Your task to perform on an android device: set an alarm Image 0: 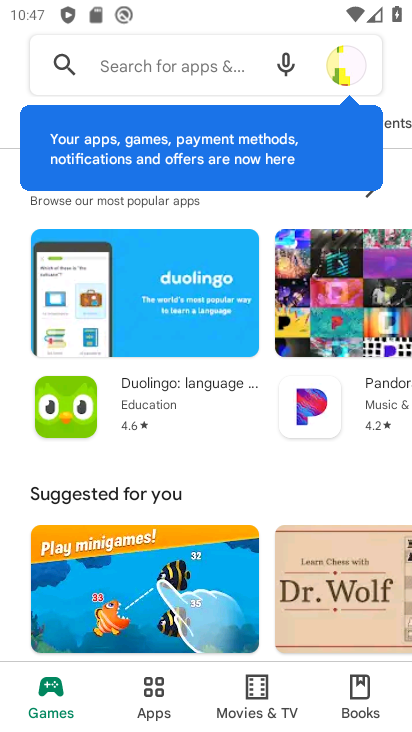
Step 0: press home button
Your task to perform on an android device: set an alarm Image 1: 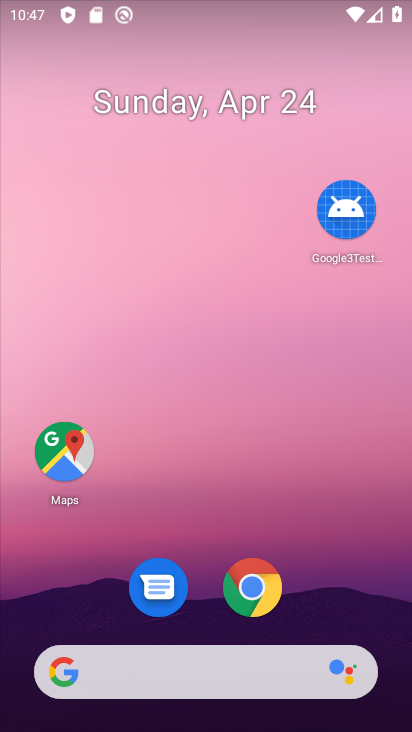
Step 1: drag from (354, 527) to (325, 83)
Your task to perform on an android device: set an alarm Image 2: 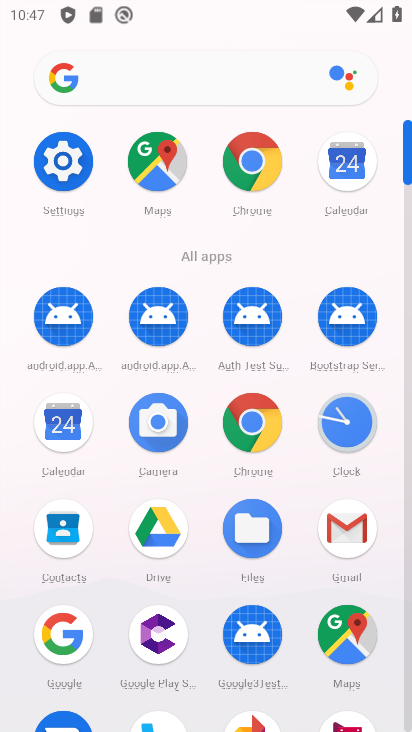
Step 2: click (342, 439)
Your task to perform on an android device: set an alarm Image 3: 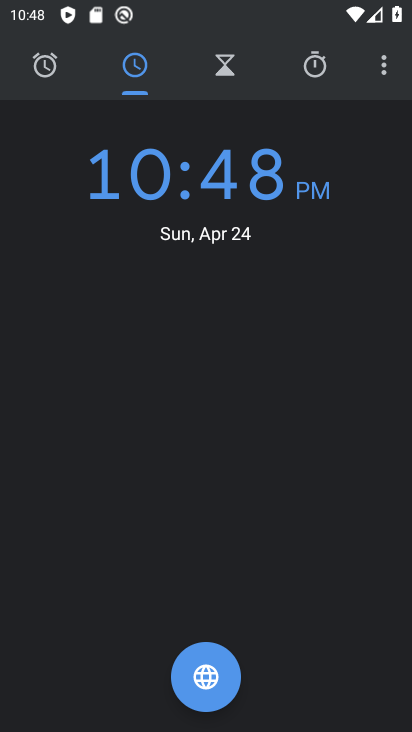
Step 3: click (389, 73)
Your task to perform on an android device: set an alarm Image 4: 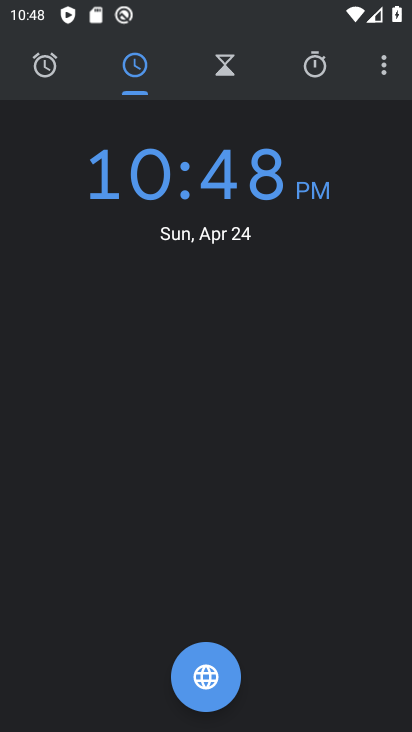
Step 4: click (38, 72)
Your task to perform on an android device: set an alarm Image 5: 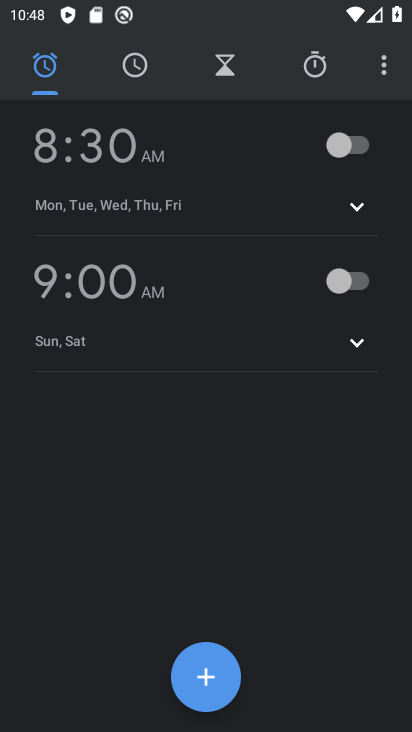
Step 5: click (200, 679)
Your task to perform on an android device: set an alarm Image 6: 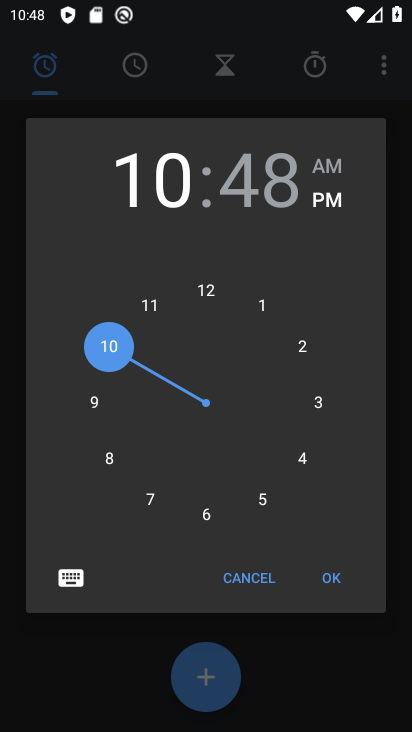
Step 6: click (336, 579)
Your task to perform on an android device: set an alarm Image 7: 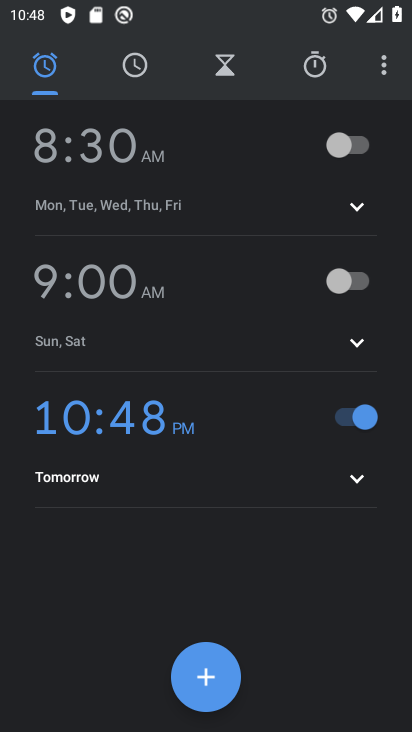
Step 7: task complete